Your task to perform on an android device: Open Amazon Image 0: 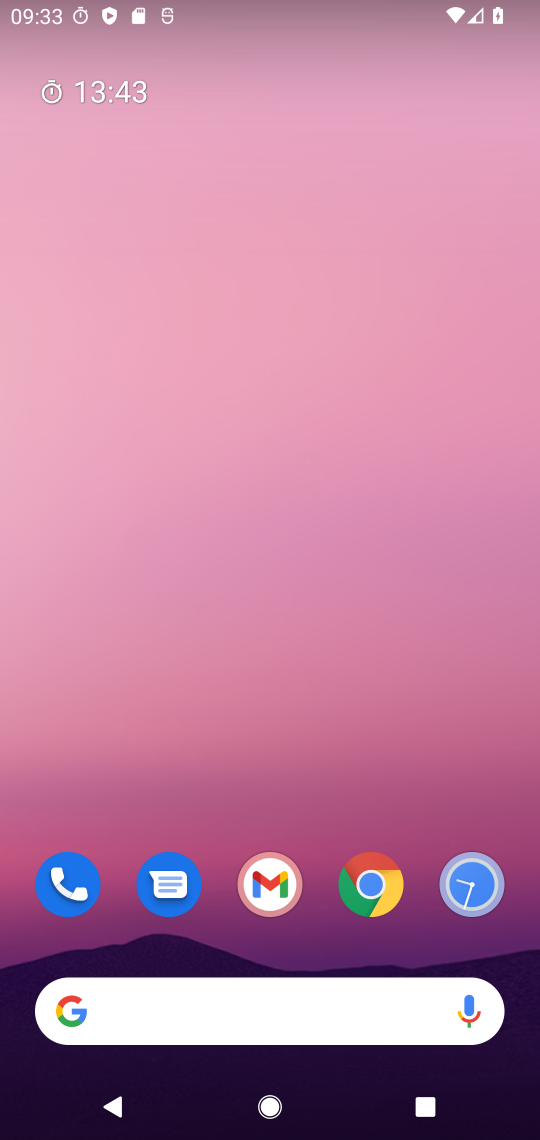
Step 0: click (374, 893)
Your task to perform on an android device: Open Amazon Image 1: 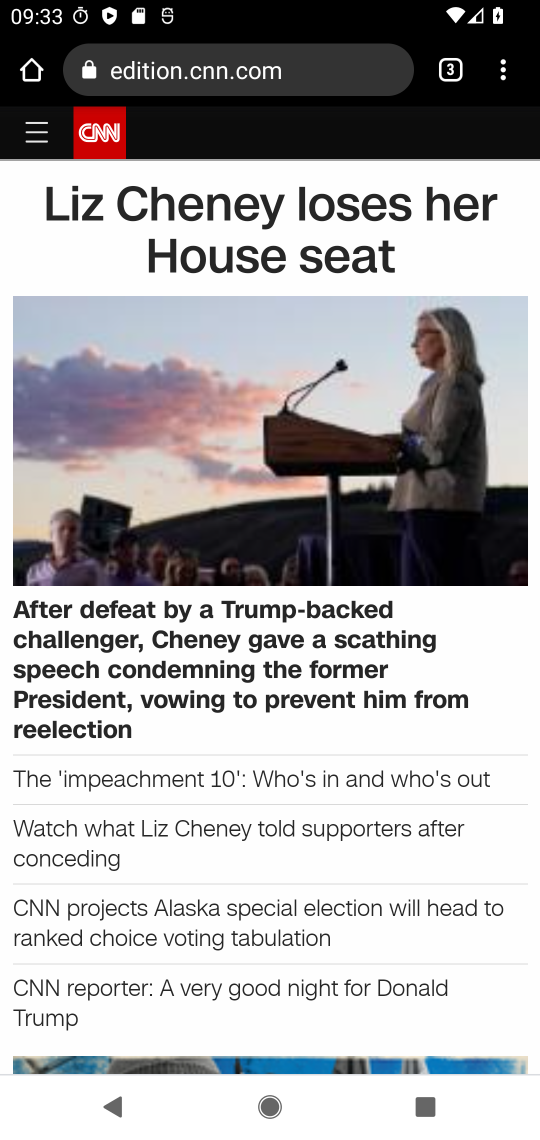
Step 1: click (482, 64)
Your task to perform on an android device: Open Amazon Image 2: 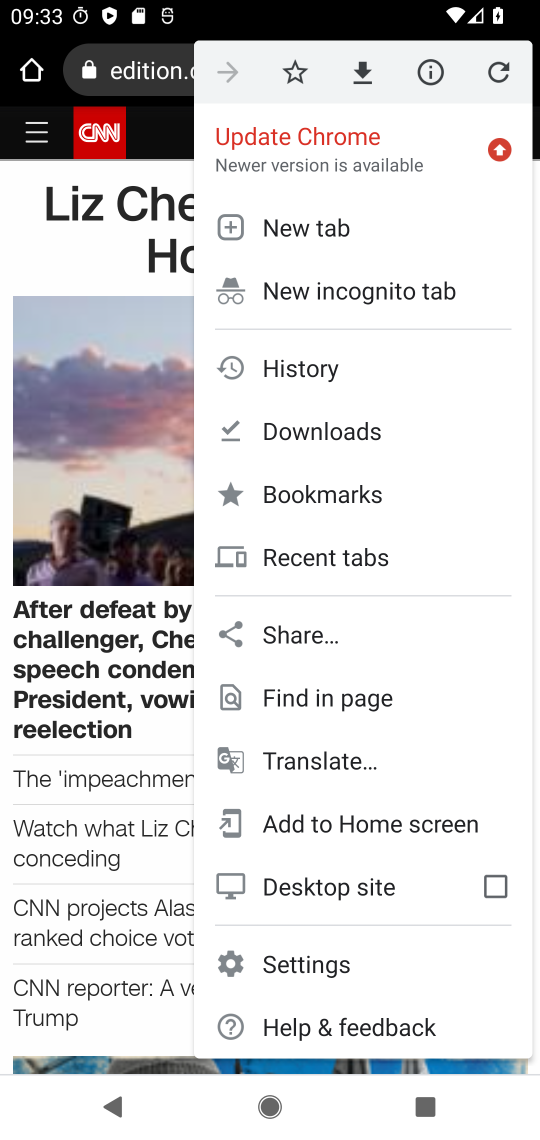
Step 2: click (261, 221)
Your task to perform on an android device: Open Amazon Image 3: 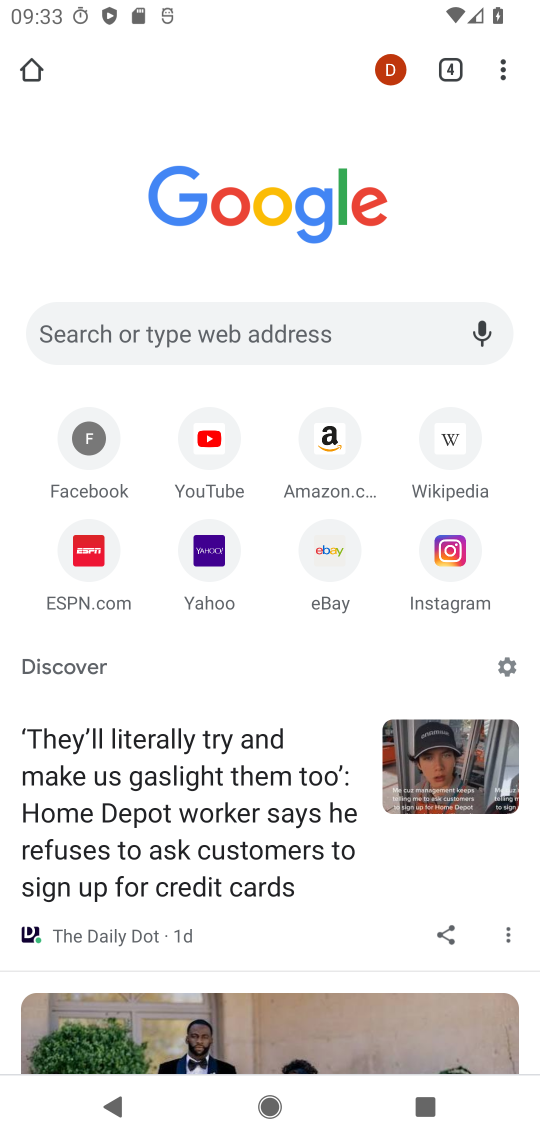
Step 3: click (339, 440)
Your task to perform on an android device: Open Amazon Image 4: 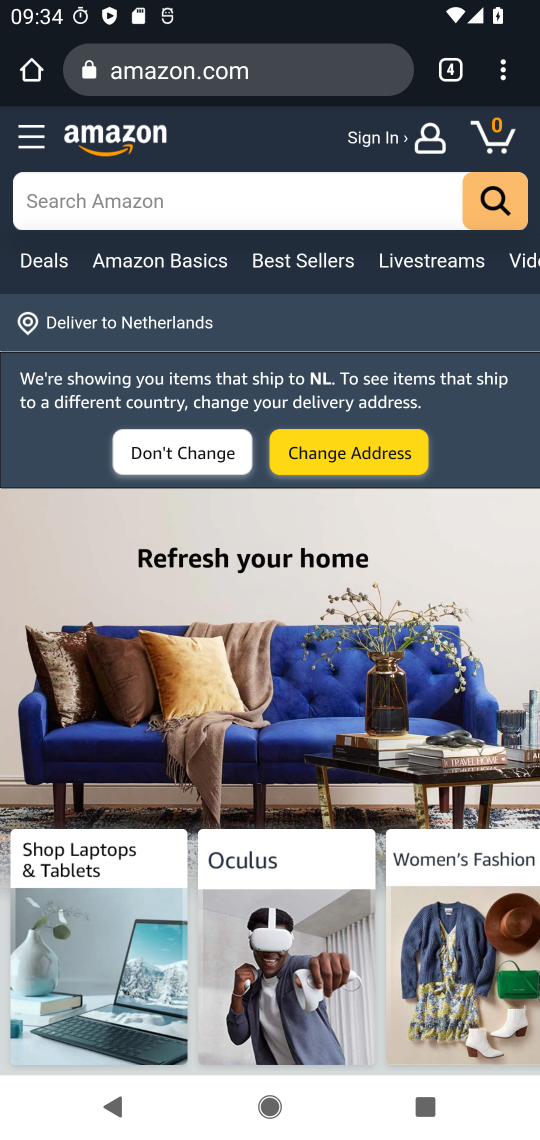
Step 4: task complete